Your task to perform on an android device: find which apps use the phone's location Image 0: 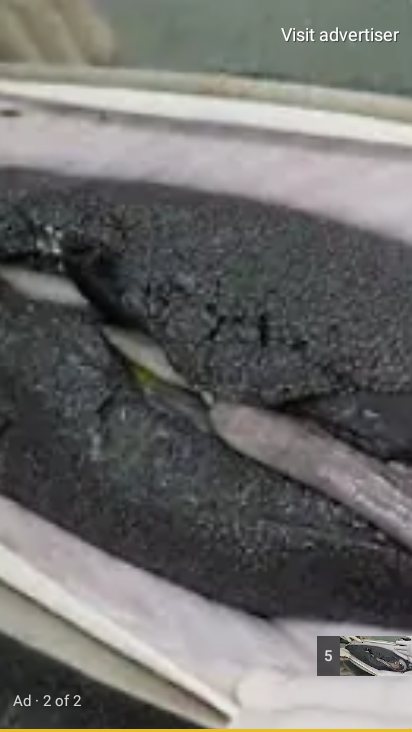
Step 0: press home button
Your task to perform on an android device: find which apps use the phone's location Image 1: 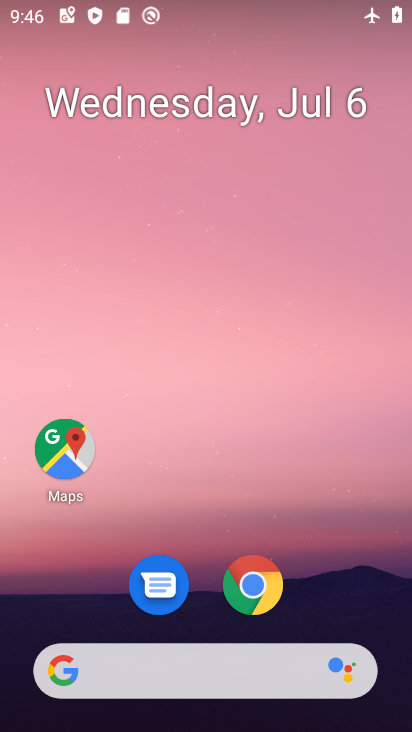
Step 1: drag from (243, 433) to (284, 1)
Your task to perform on an android device: find which apps use the phone's location Image 2: 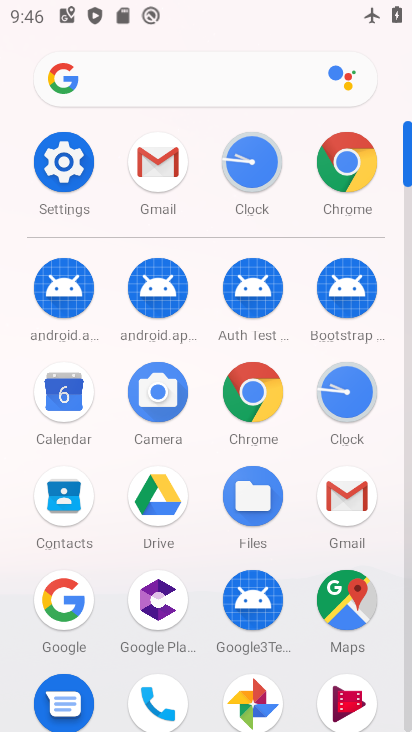
Step 2: click (64, 155)
Your task to perform on an android device: find which apps use the phone's location Image 3: 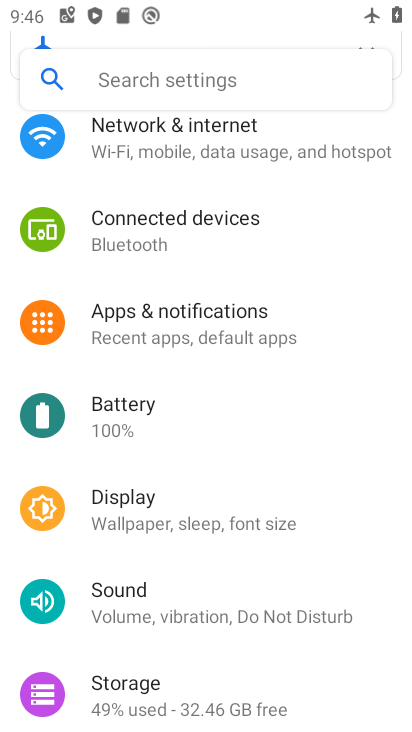
Step 3: drag from (201, 601) to (238, 103)
Your task to perform on an android device: find which apps use the phone's location Image 4: 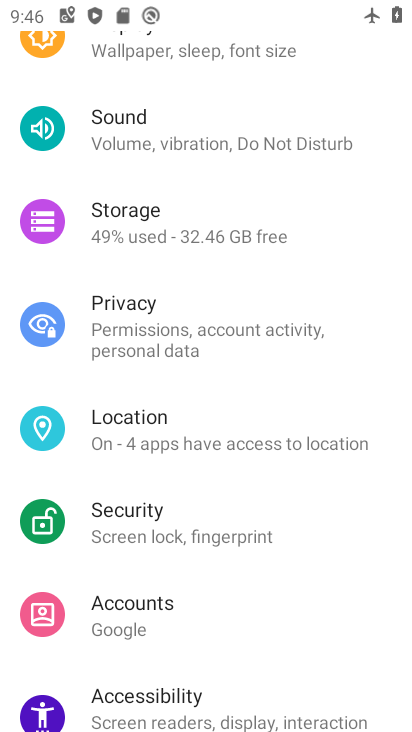
Step 4: click (226, 422)
Your task to perform on an android device: find which apps use the phone's location Image 5: 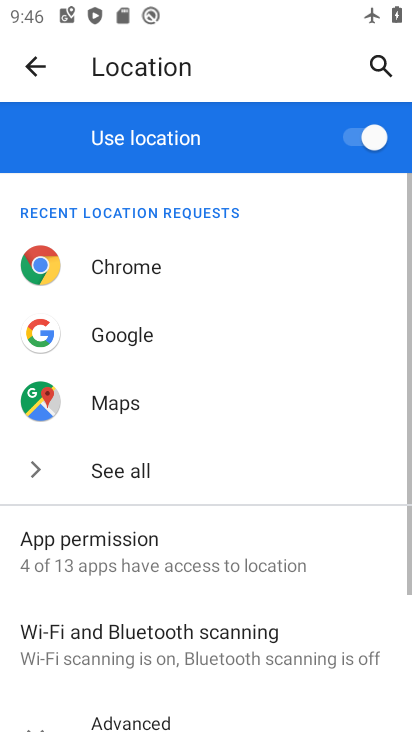
Step 5: click (154, 547)
Your task to perform on an android device: find which apps use the phone's location Image 6: 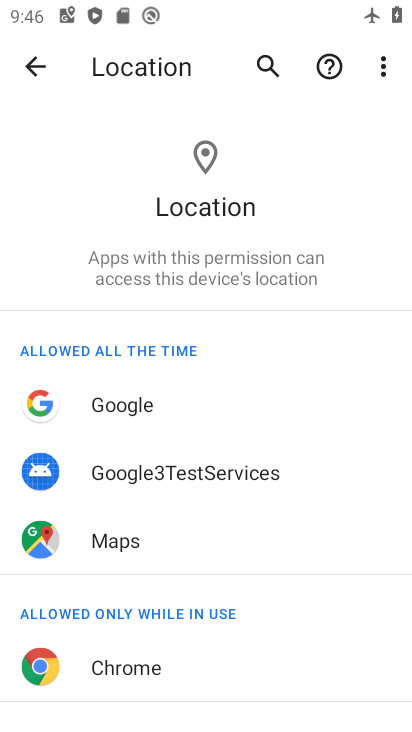
Step 6: task complete